Your task to perform on an android device: Open Chrome and go to settings Image 0: 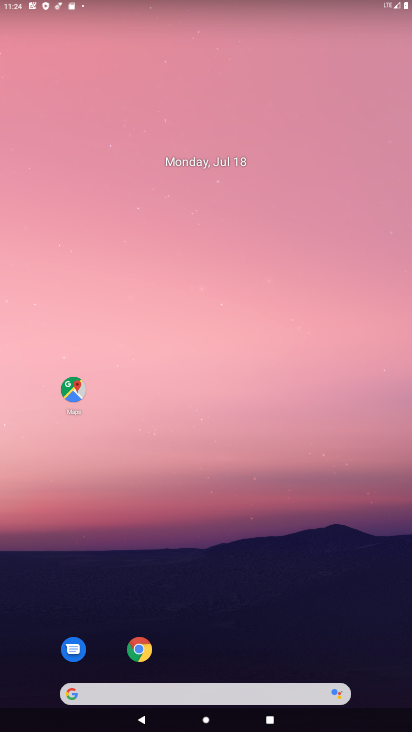
Step 0: click (146, 646)
Your task to perform on an android device: Open Chrome and go to settings Image 1: 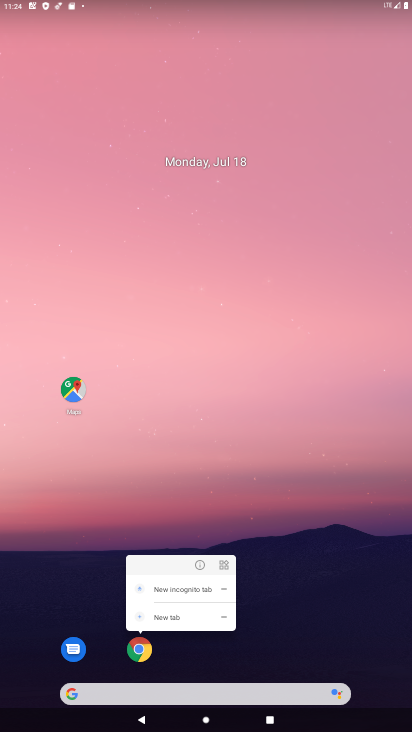
Step 1: click (146, 646)
Your task to perform on an android device: Open Chrome and go to settings Image 2: 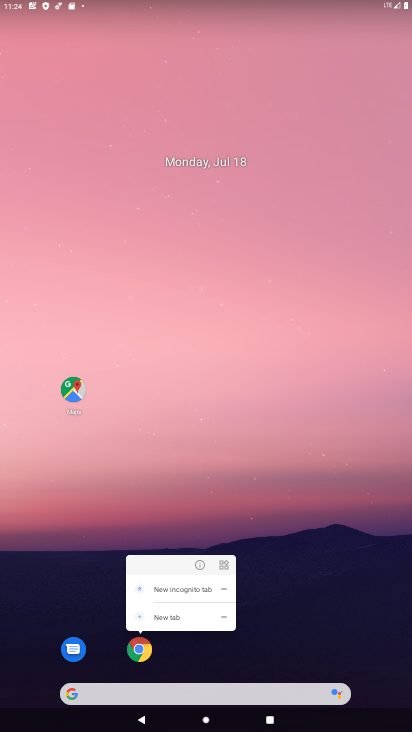
Step 2: click (146, 646)
Your task to perform on an android device: Open Chrome and go to settings Image 3: 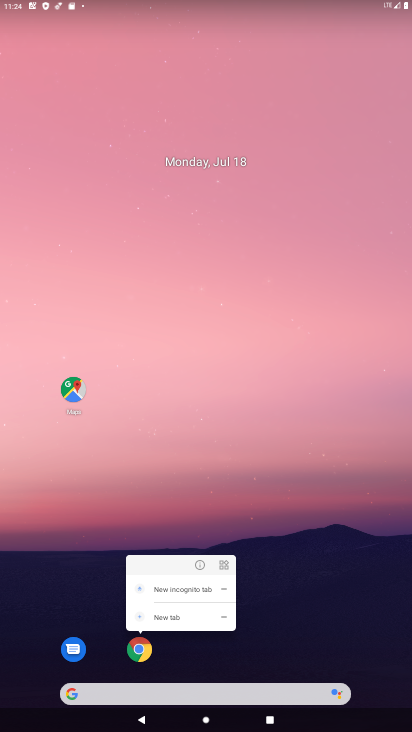
Step 3: click (137, 650)
Your task to perform on an android device: Open Chrome and go to settings Image 4: 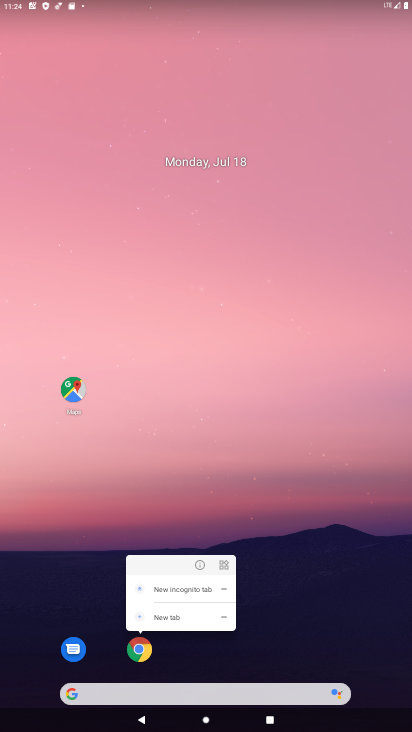
Step 4: click (137, 650)
Your task to perform on an android device: Open Chrome and go to settings Image 5: 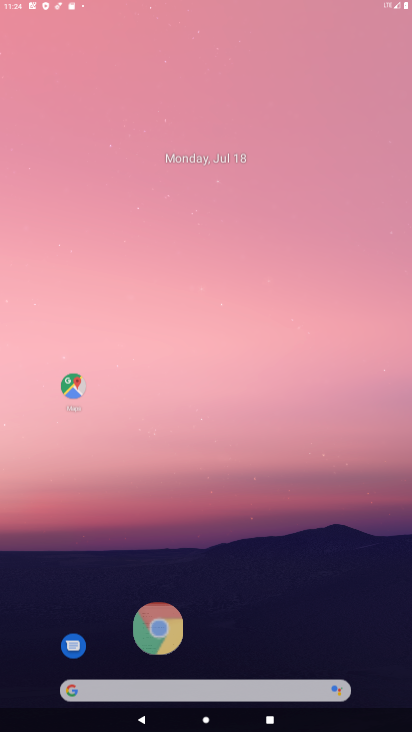
Step 5: click (137, 650)
Your task to perform on an android device: Open Chrome and go to settings Image 6: 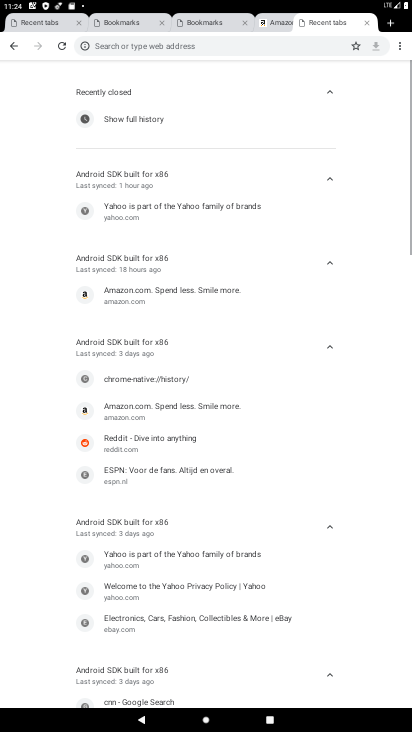
Step 6: click (137, 650)
Your task to perform on an android device: Open Chrome and go to settings Image 7: 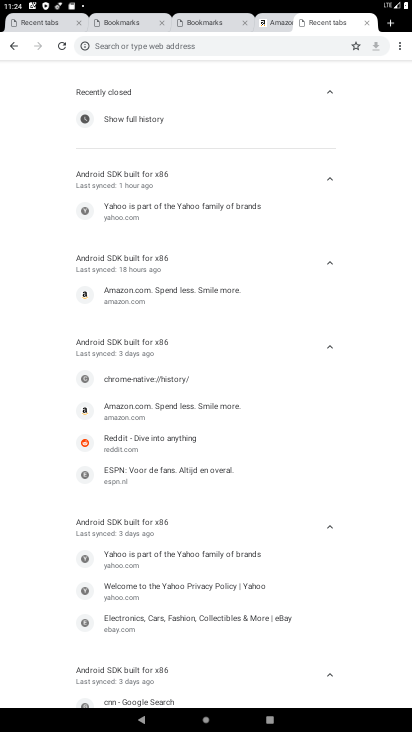
Step 7: click (404, 45)
Your task to perform on an android device: Open Chrome and go to settings Image 8: 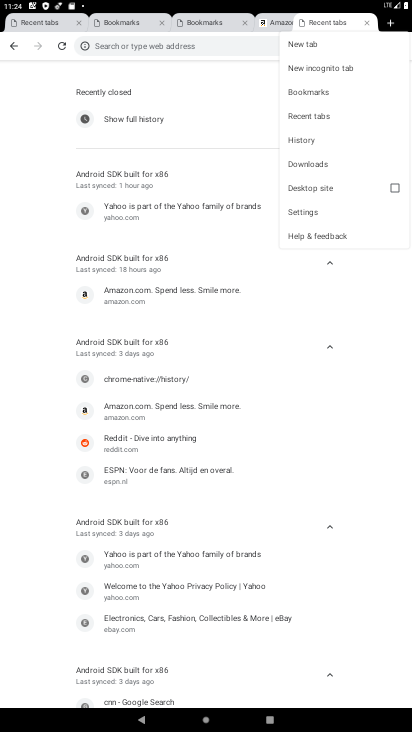
Step 8: click (320, 210)
Your task to perform on an android device: Open Chrome and go to settings Image 9: 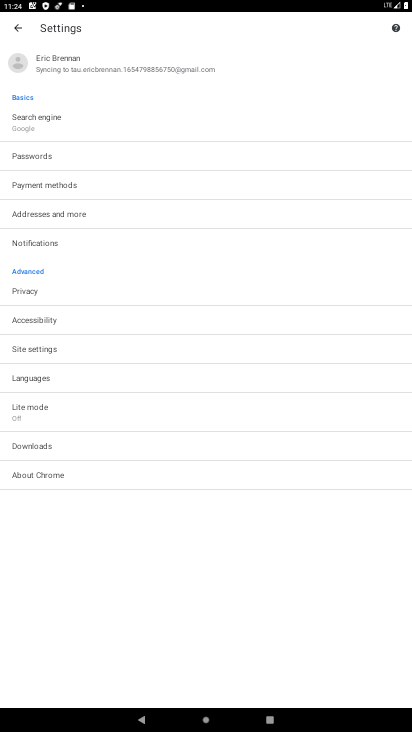
Step 9: task complete